Your task to perform on an android device: check storage Image 0: 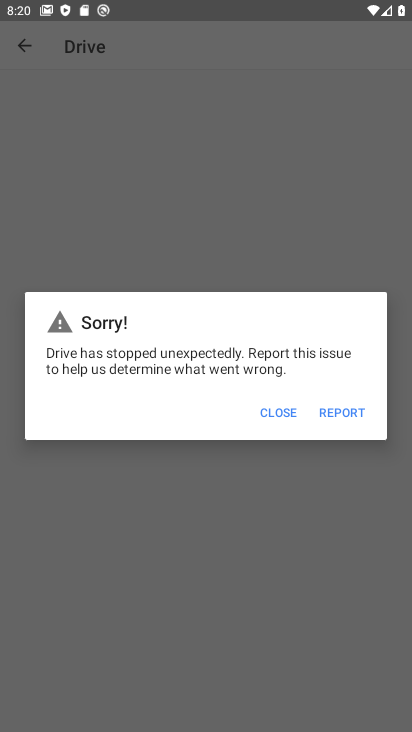
Step 0: press back button
Your task to perform on an android device: check storage Image 1: 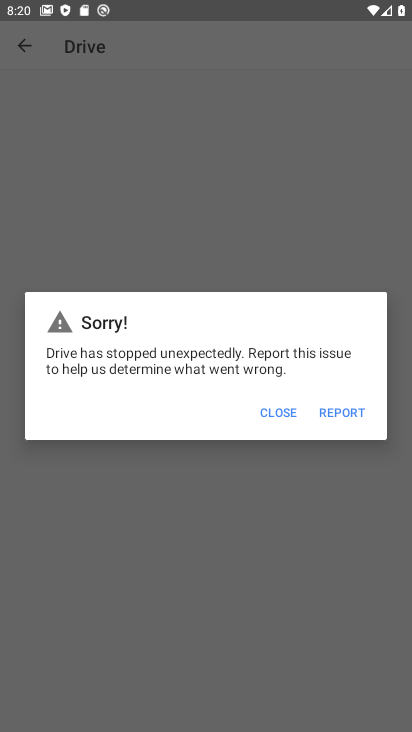
Step 1: press back button
Your task to perform on an android device: check storage Image 2: 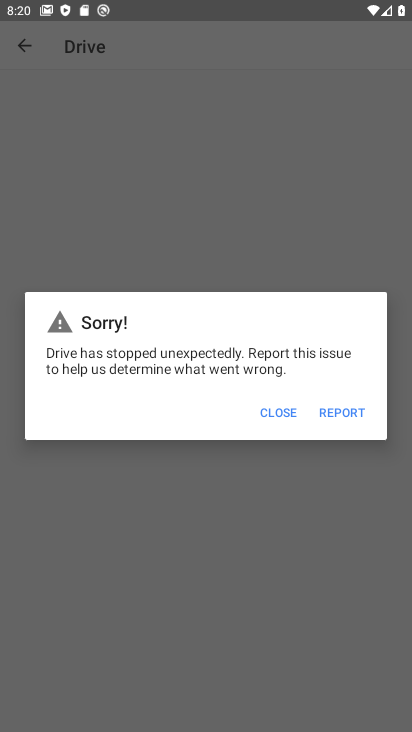
Step 2: press home button
Your task to perform on an android device: check storage Image 3: 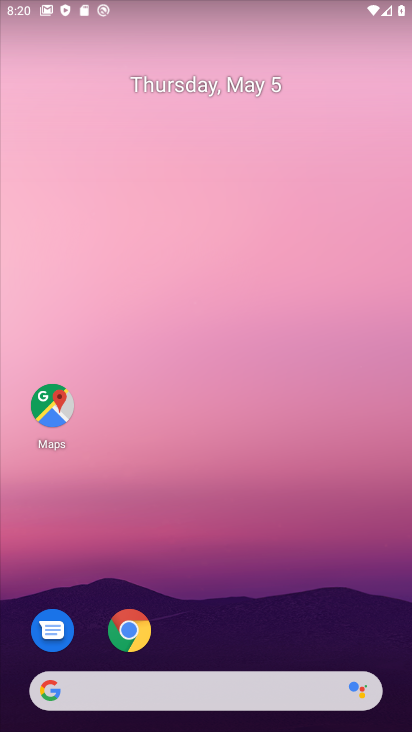
Step 3: drag from (233, 573) to (294, 1)
Your task to perform on an android device: check storage Image 4: 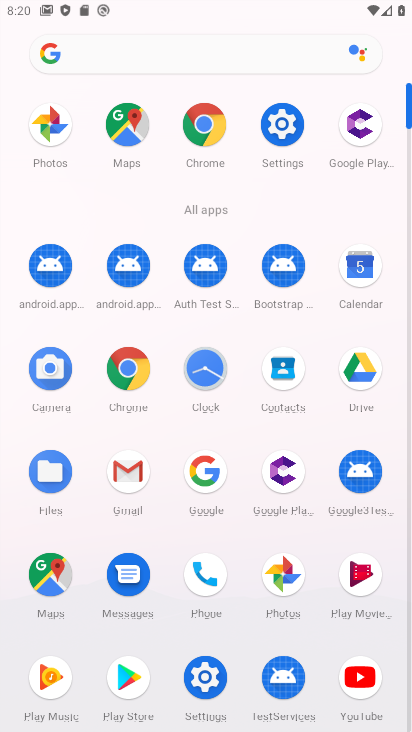
Step 4: click (288, 118)
Your task to perform on an android device: check storage Image 5: 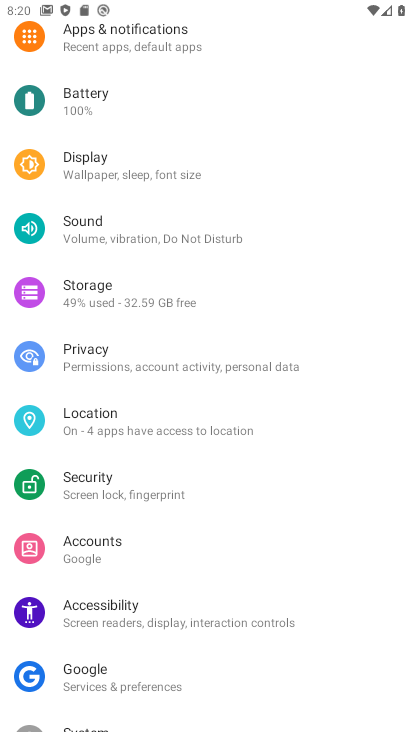
Step 5: click (141, 297)
Your task to perform on an android device: check storage Image 6: 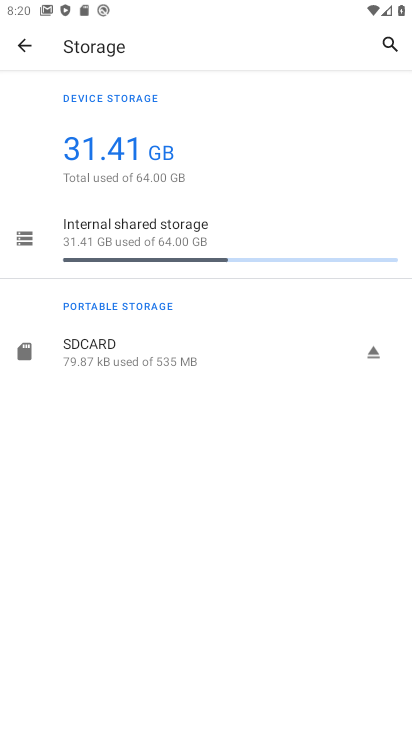
Step 6: click (124, 356)
Your task to perform on an android device: check storage Image 7: 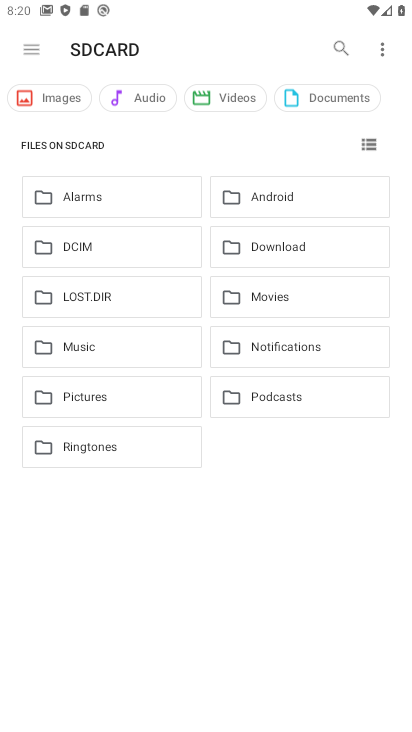
Step 7: task complete